Your task to perform on an android device: Open wifi settings Image 0: 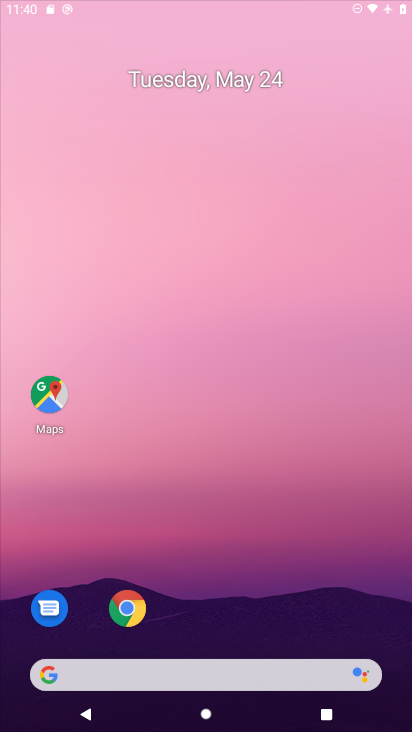
Step 0: click (238, 78)
Your task to perform on an android device: Open wifi settings Image 1: 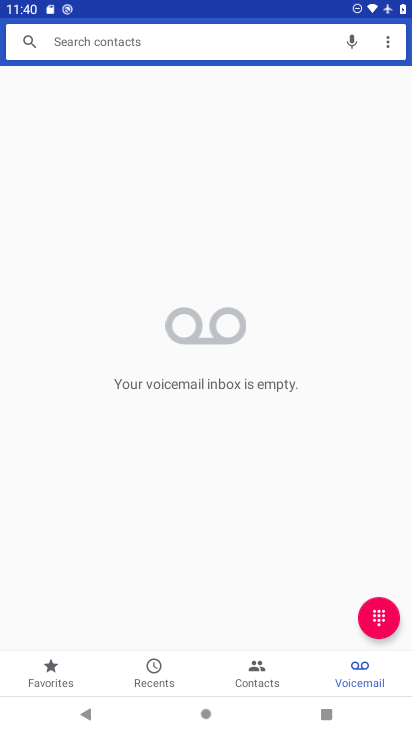
Step 1: press home button
Your task to perform on an android device: Open wifi settings Image 2: 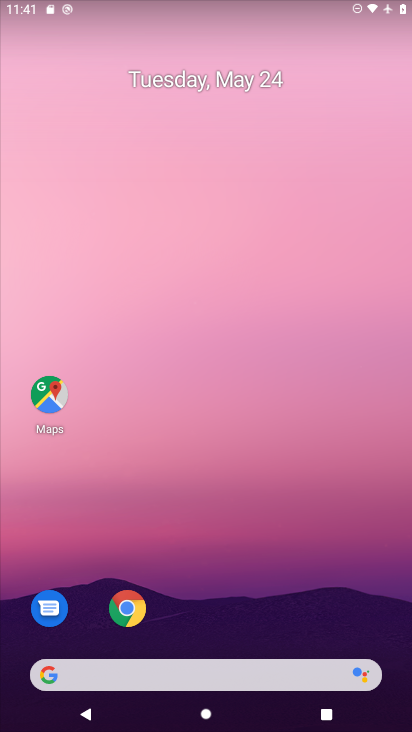
Step 2: drag from (317, 623) to (263, 178)
Your task to perform on an android device: Open wifi settings Image 3: 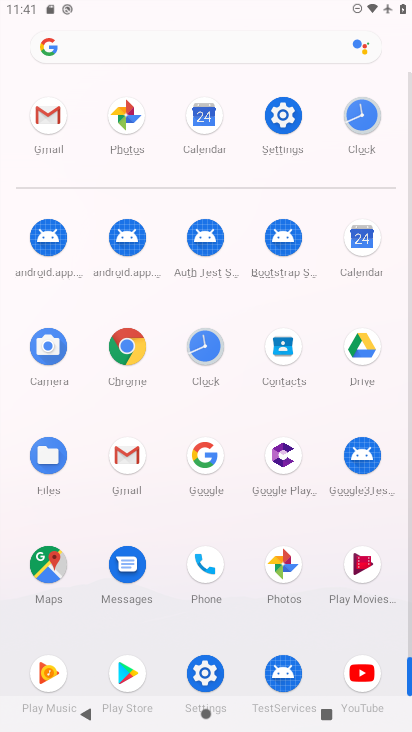
Step 3: click (203, 673)
Your task to perform on an android device: Open wifi settings Image 4: 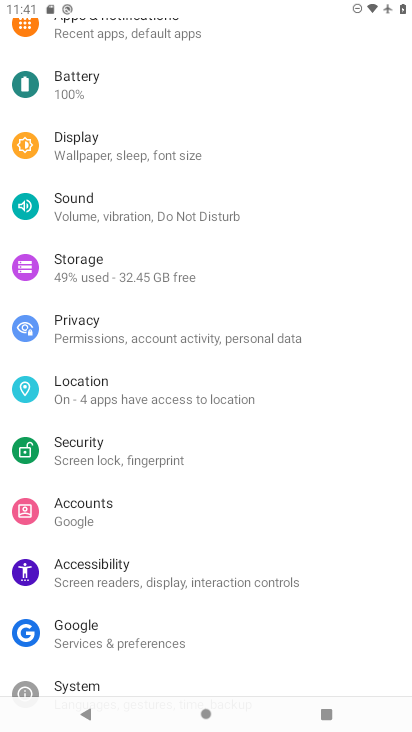
Step 4: drag from (294, 98) to (301, 613)
Your task to perform on an android device: Open wifi settings Image 5: 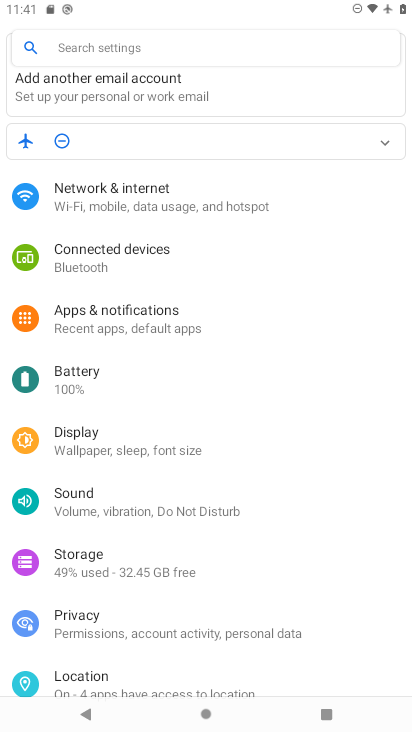
Step 5: click (110, 195)
Your task to perform on an android device: Open wifi settings Image 6: 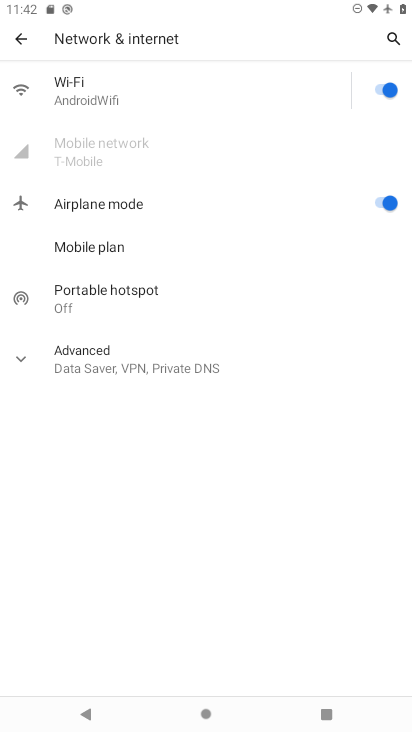
Step 6: click (67, 81)
Your task to perform on an android device: Open wifi settings Image 7: 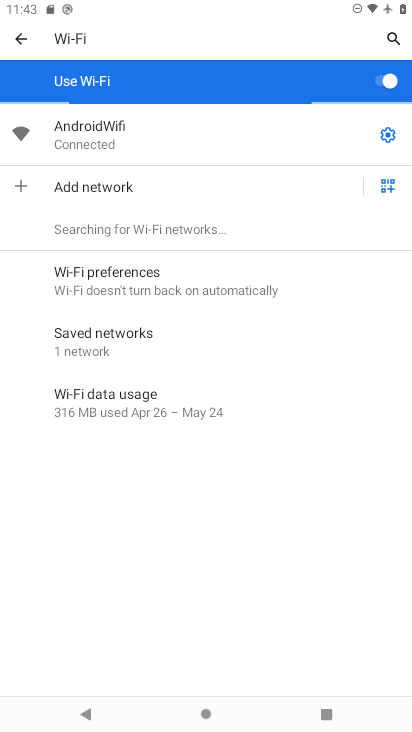
Step 7: click (383, 134)
Your task to perform on an android device: Open wifi settings Image 8: 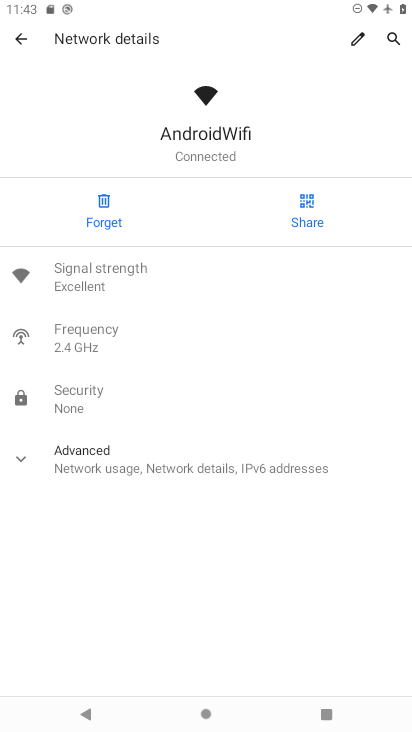
Step 8: task complete